Your task to perform on an android device: snooze an email in the gmail app Image 0: 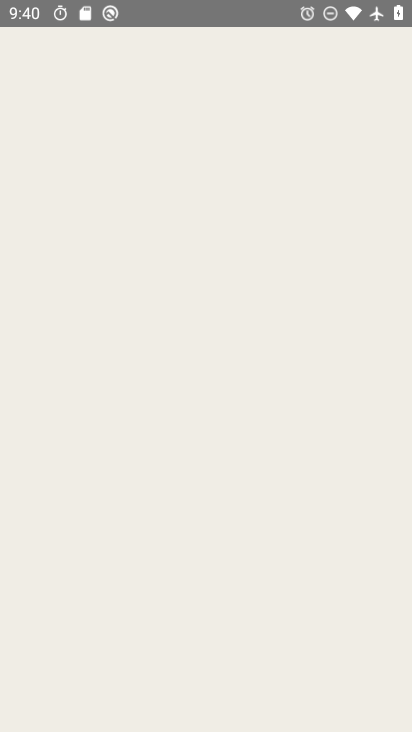
Step 0: press home button
Your task to perform on an android device: snooze an email in the gmail app Image 1: 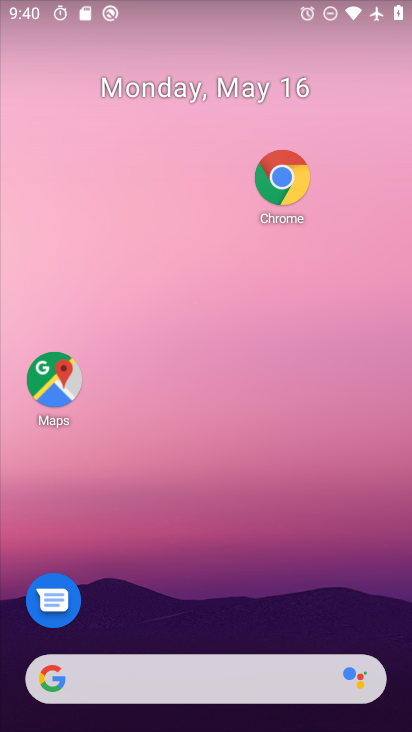
Step 1: drag from (242, 672) to (347, 219)
Your task to perform on an android device: snooze an email in the gmail app Image 2: 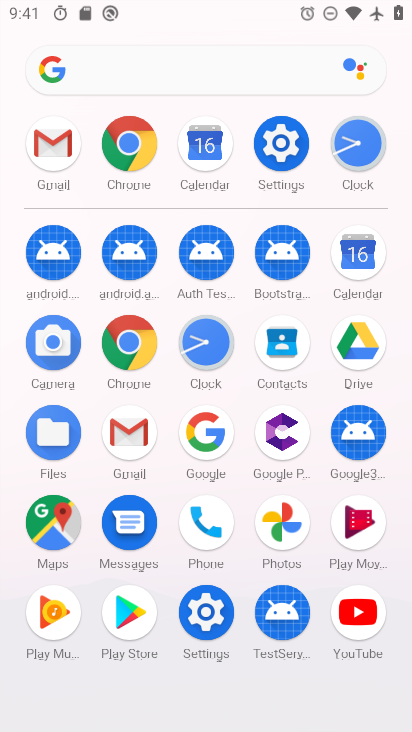
Step 2: click (43, 150)
Your task to perform on an android device: snooze an email in the gmail app Image 3: 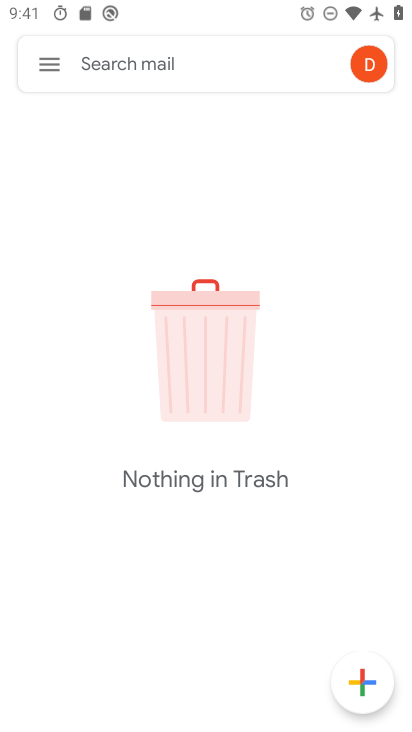
Step 3: click (43, 60)
Your task to perform on an android device: snooze an email in the gmail app Image 4: 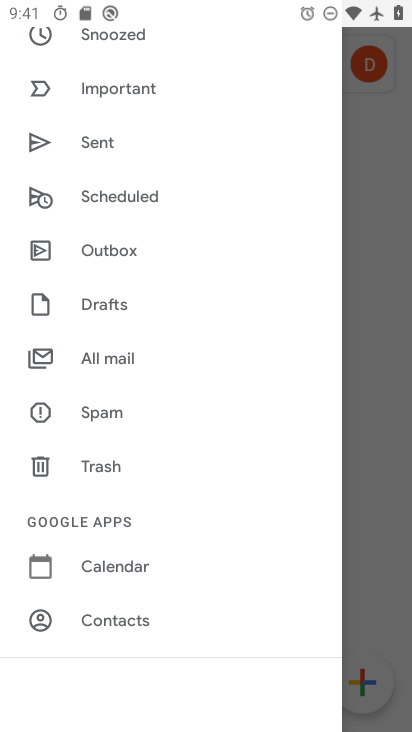
Step 4: click (100, 354)
Your task to perform on an android device: snooze an email in the gmail app Image 5: 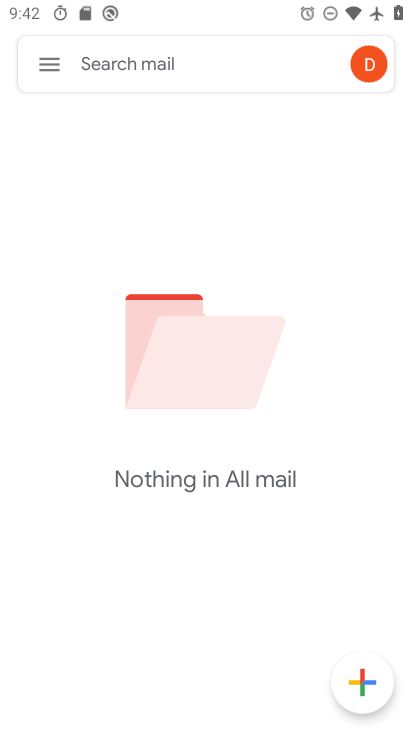
Step 5: task complete